Your task to perform on an android device: move a message to another label in the gmail app Image 0: 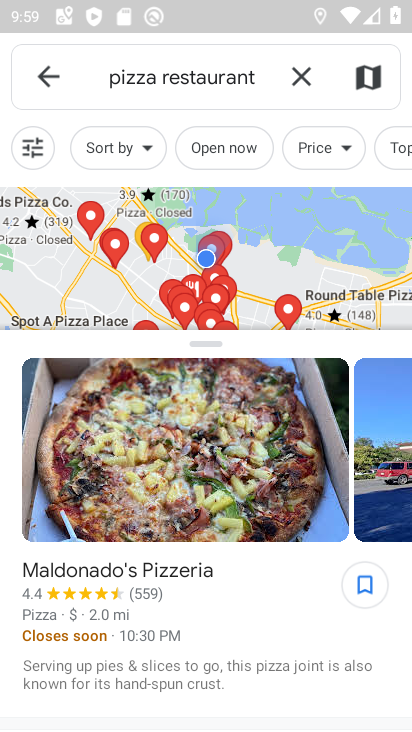
Step 0: press home button
Your task to perform on an android device: move a message to another label in the gmail app Image 1: 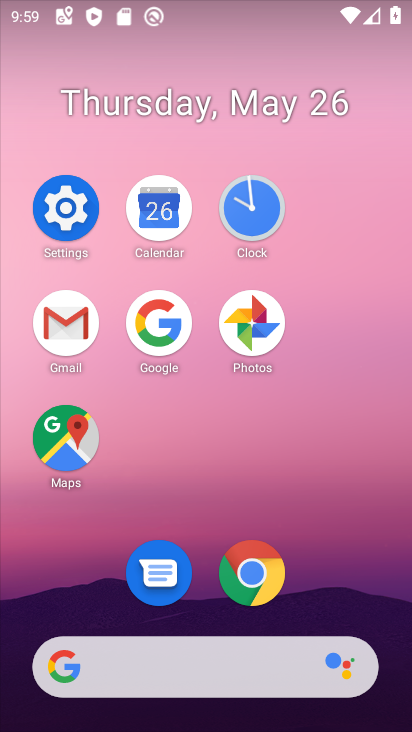
Step 1: click (85, 337)
Your task to perform on an android device: move a message to another label in the gmail app Image 2: 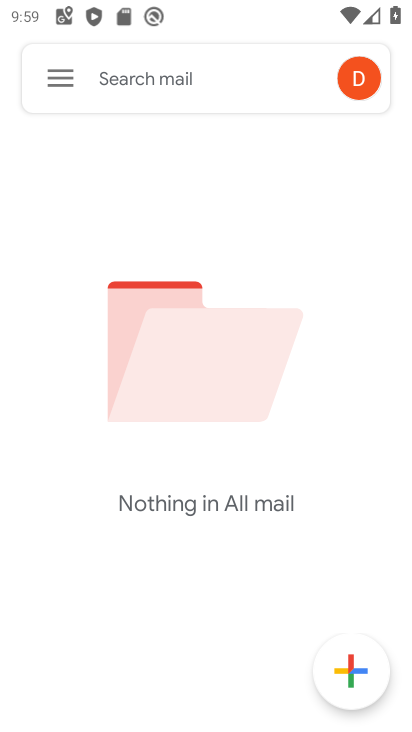
Step 2: task complete